Your task to perform on an android device: turn on javascript in the chrome app Image 0: 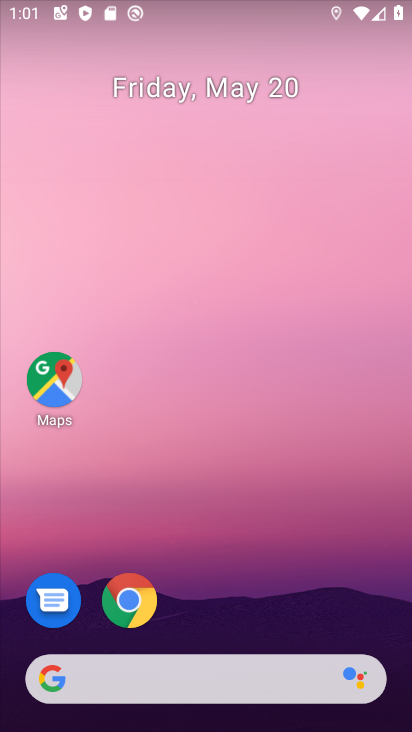
Step 0: press home button
Your task to perform on an android device: turn on javascript in the chrome app Image 1: 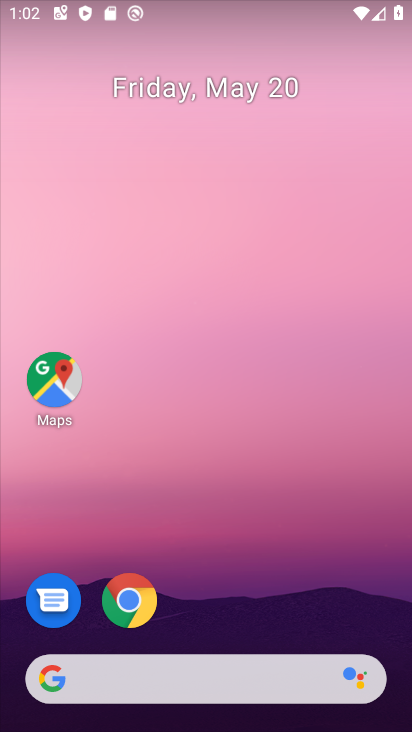
Step 1: click (126, 595)
Your task to perform on an android device: turn on javascript in the chrome app Image 2: 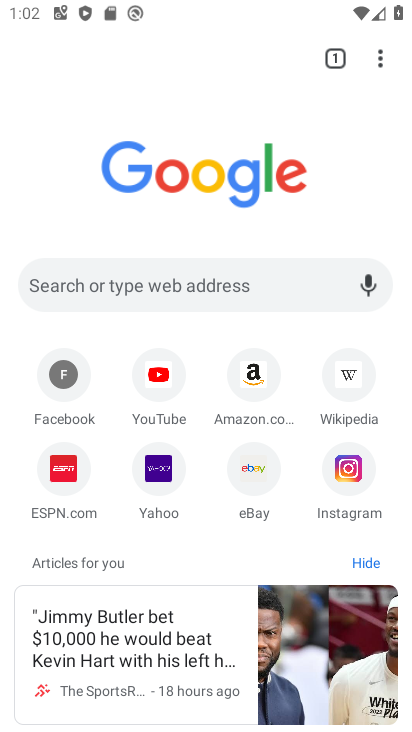
Step 2: click (375, 68)
Your task to perform on an android device: turn on javascript in the chrome app Image 3: 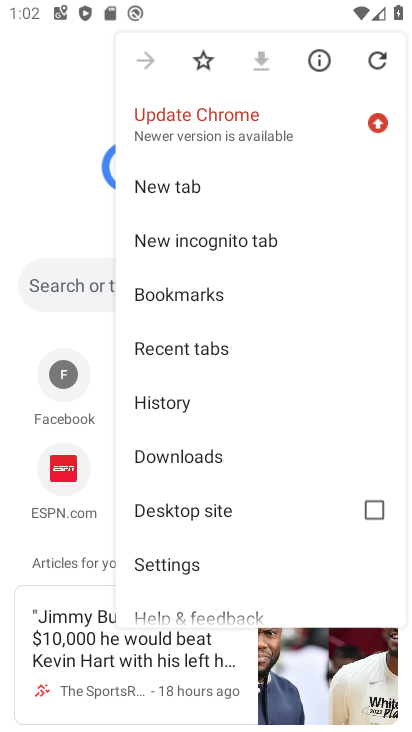
Step 3: click (222, 561)
Your task to perform on an android device: turn on javascript in the chrome app Image 4: 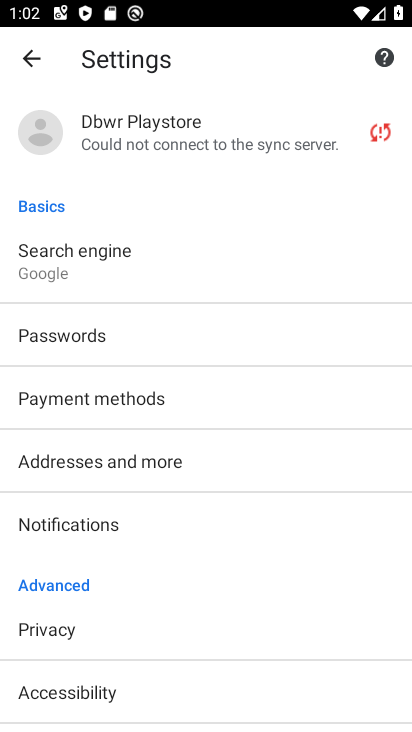
Step 4: drag from (198, 588) to (200, 208)
Your task to perform on an android device: turn on javascript in the chrome app Image 5: 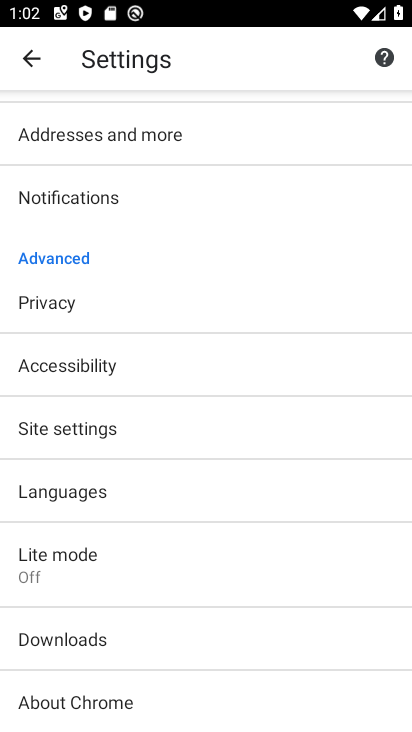
Step 5: click (113, 434)
Your task to perform on an android device: turn on javascript in the chrome app Image 6: 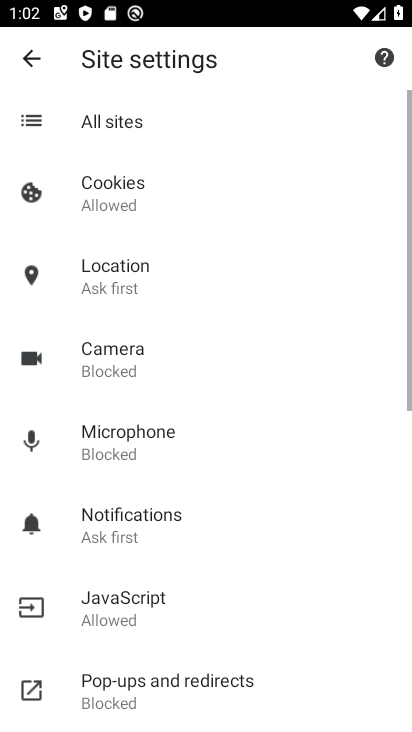
Step 6: drag from (226, 602) to (221, 390)
Your task to perform on an android device: turn on javascript in the chrome app Image 7: 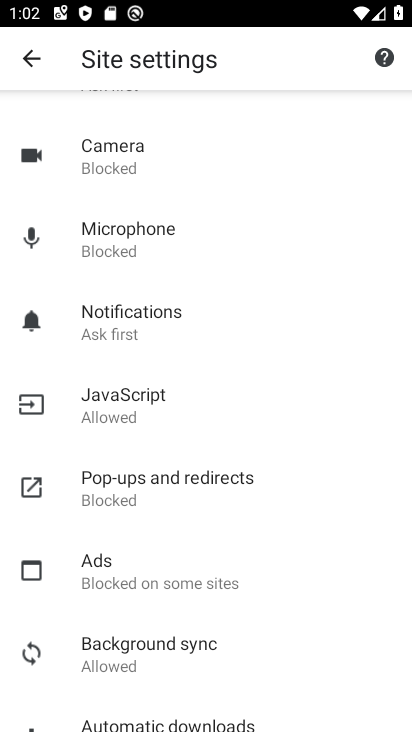
Step 7: click (146, 389)
Your task to perform on an android device: turn on javascript in the chrome app Image 8: 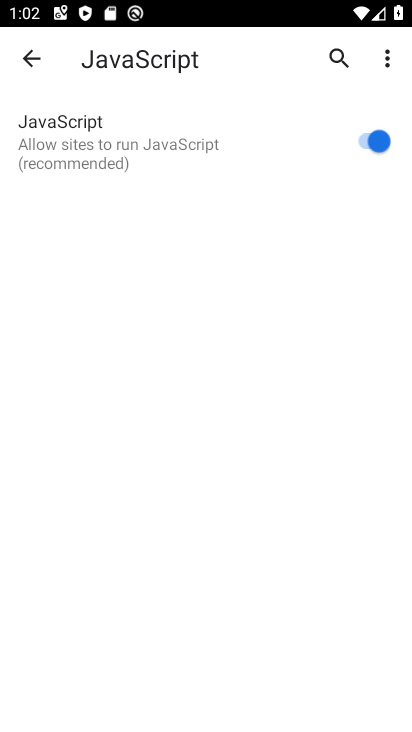
Step 8: task complete